Your task to perform on an android device: What's on my calendar tomorrow? Image 0: 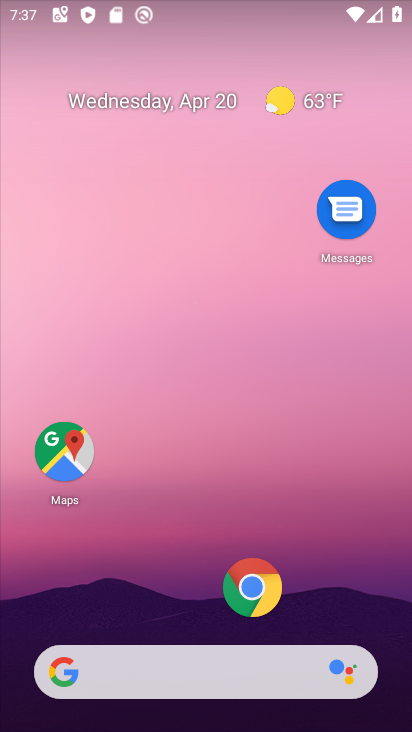
Step 0: drag from (182, 664) to (294, 166)
Your task to perform on an android device: What's on my calendar tomorrow? Image 1: 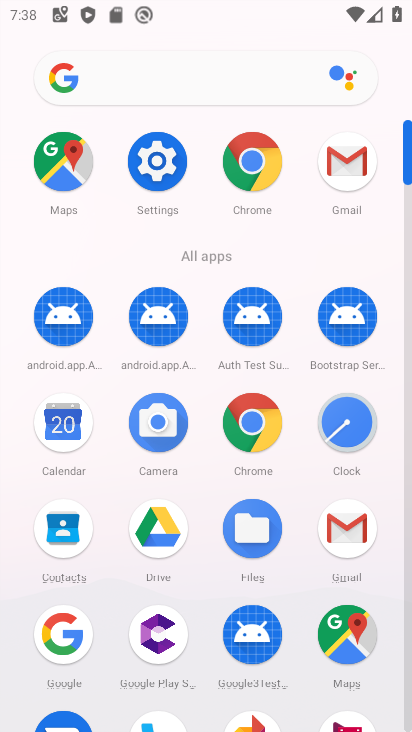
Step 1: click (71, 421)
Your task to perform on an android device: What's on my calendar tomorrow? Image 2: 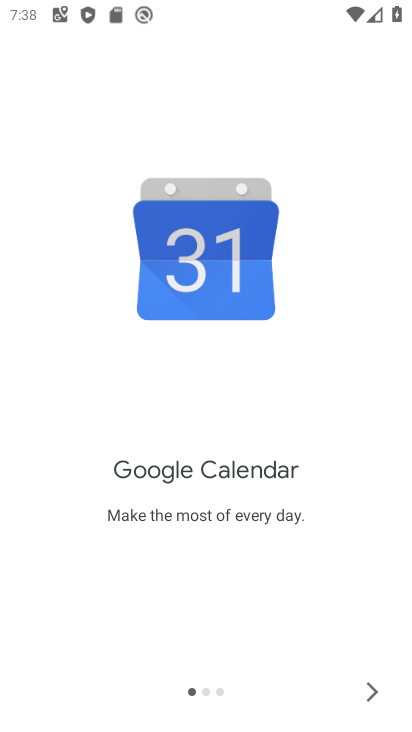
Step 2: click (367, 685)
Your task to perform on an android device: What's on my calendar tomorrow? Image 3: 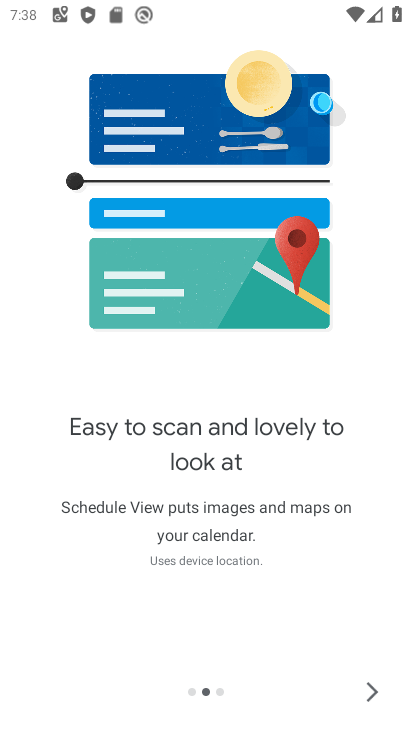
Step 3: click (368, 681)
Your task to perform on an android device: What's on my calendar tomorrow? Image 4: 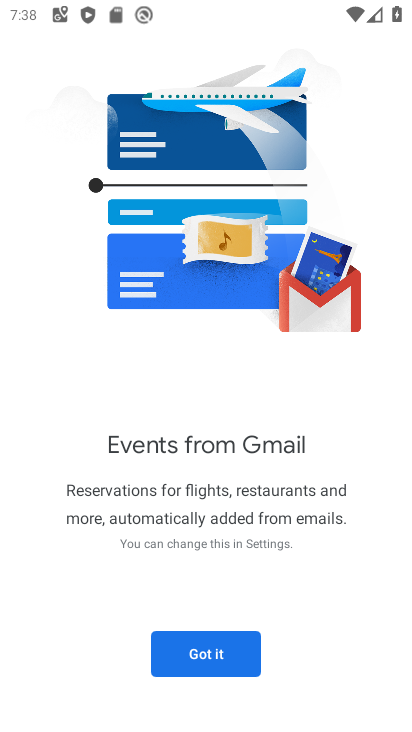
Step 4: click (187, 649)
Your task to perform on an android device: What's on my calendar tomorrow? Image 5: 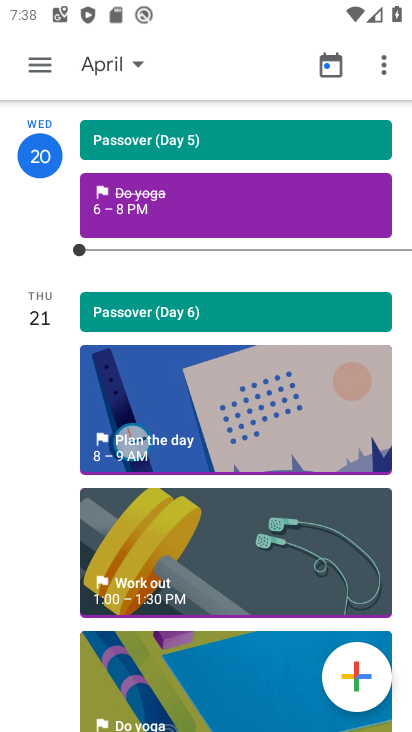
Step 5: click (112, 62)
Your task to perform on an android device: What's on my calendar tomorrow? Image 6: 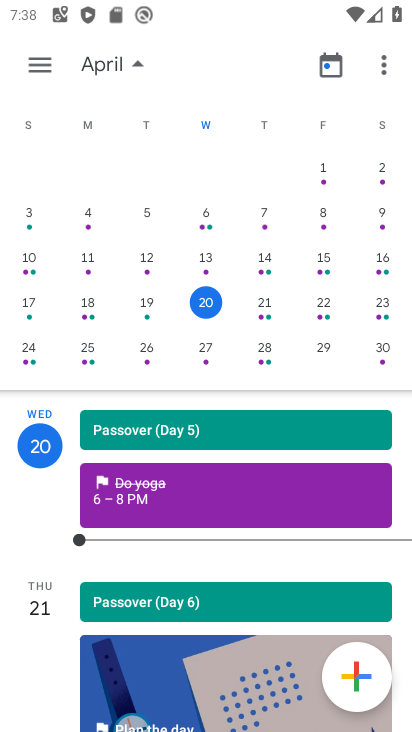
Step 6: click (260, 301)
Your task to perform on an android device: What's on my calendar tomorrow? Image 7: 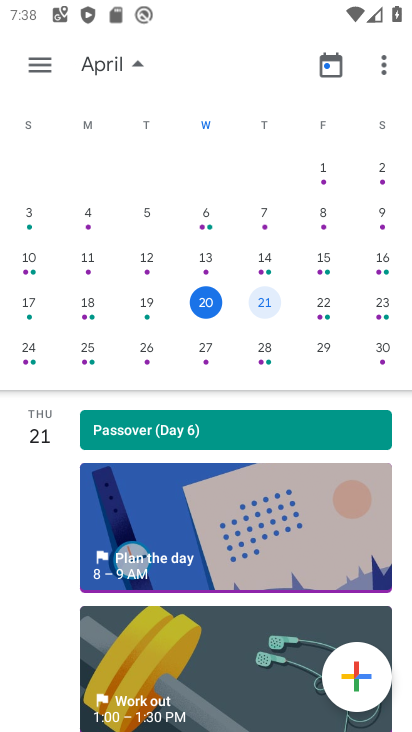
Step 7: click (45, 64)
Your task to perform on an android device: What's on my calendar tomorrow? Image 8: 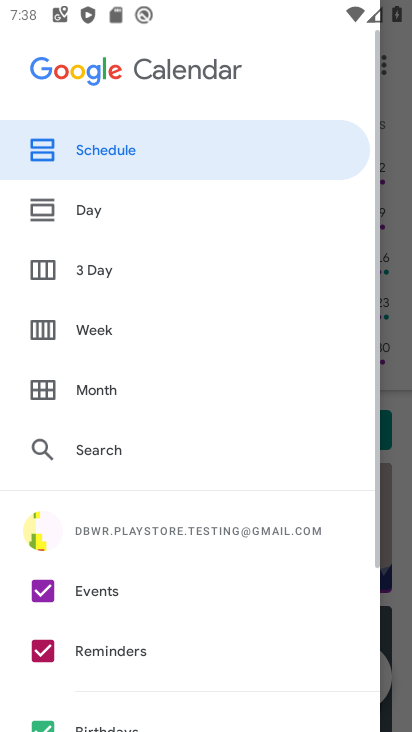
Step 8: click (91, 153)
Your task to perform on an android device: What's on my calendar tomorrow? Image 9: 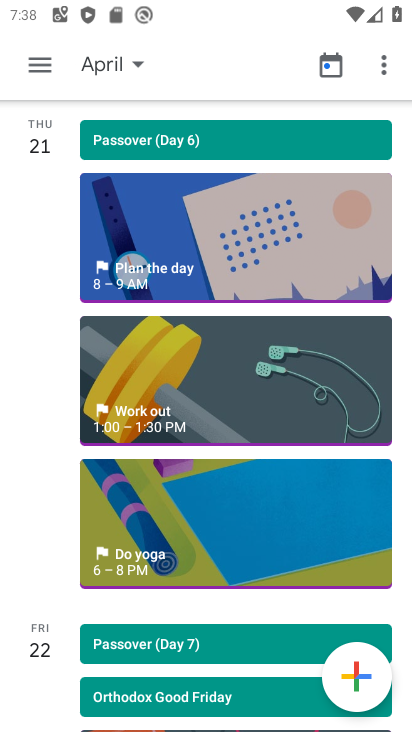
Step 9: task complete